Your task to perform on an android device: turn off picture-in-picture Image 0: 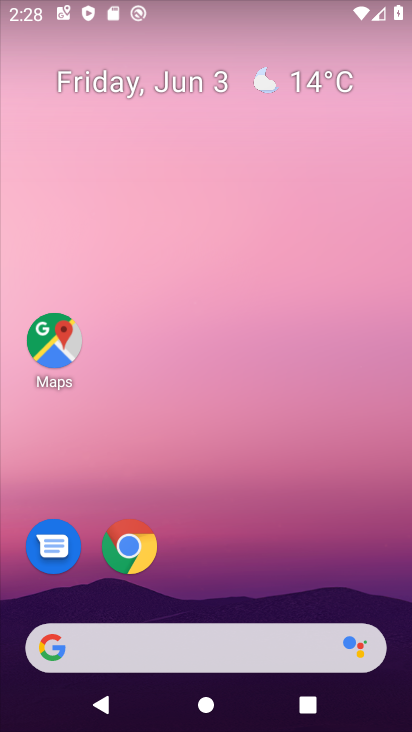
Step 0: drag from (342, 512) to (329, 44)
Your task to perform on an android device: turn off picture-in-picture Image 1: 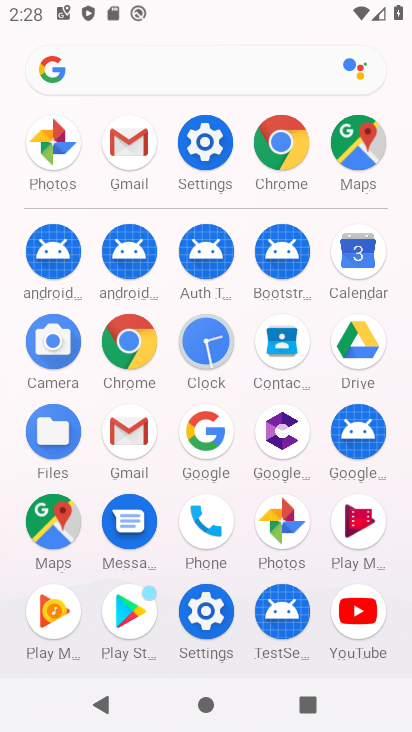
Step 1: click (278, 160)
Your task to perform on an android device: turn off picture-in-picture Image 2: 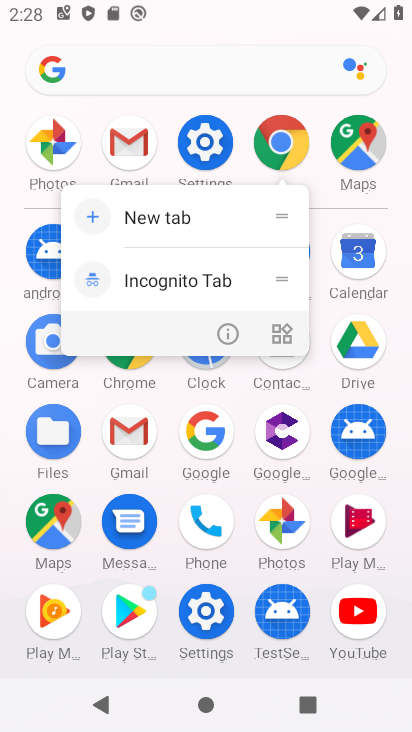
Step 2: click (228, 336)
Your task to perform on an android device: turn off picture-in-picture Image 3: 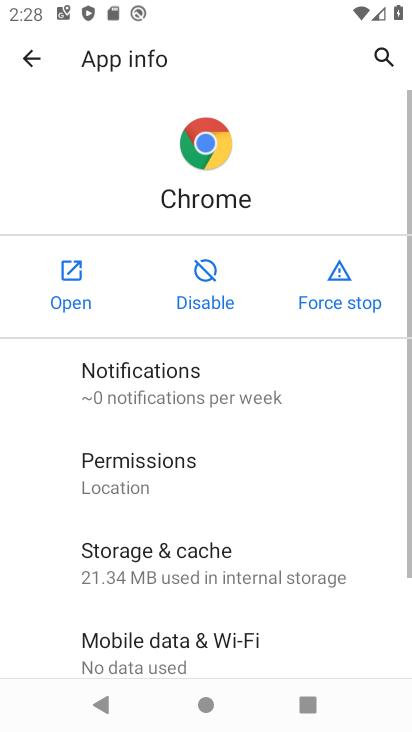
Step 3: drag from (184, 659) to (237, 252)
Your task to perform on an android device: turn off picture-in-picture Image 4: 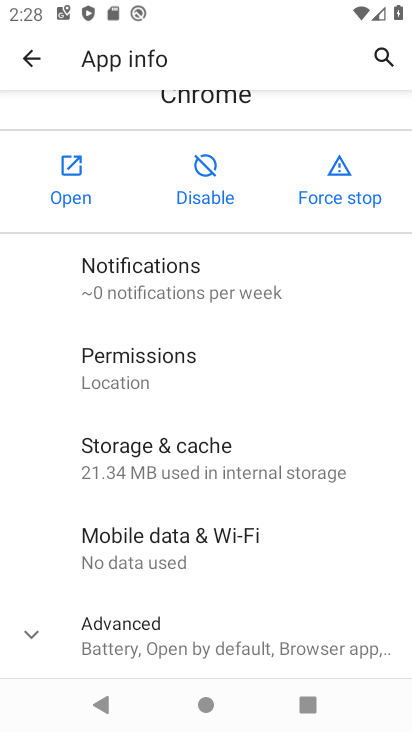
Step 4: click (181, 636)
Your task to perform on an android device: turn off picture-in-picture Image 5: 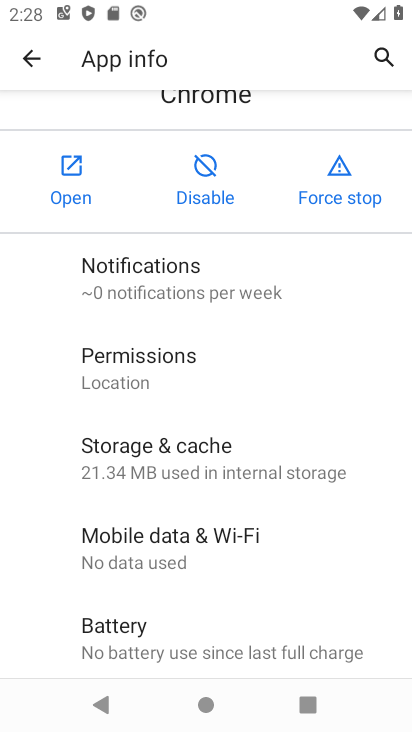
Step 5: drag from (168, 606) to (159, 173)
Your task to perform on an android device: turn off picture-in-picture Image 6: 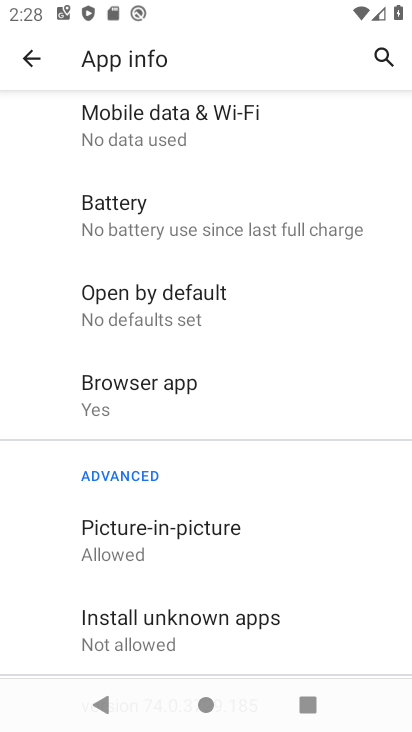
Step 6: click (116, 523)
Your task to perform on an android device: turn off picture-in-picture Image 7: 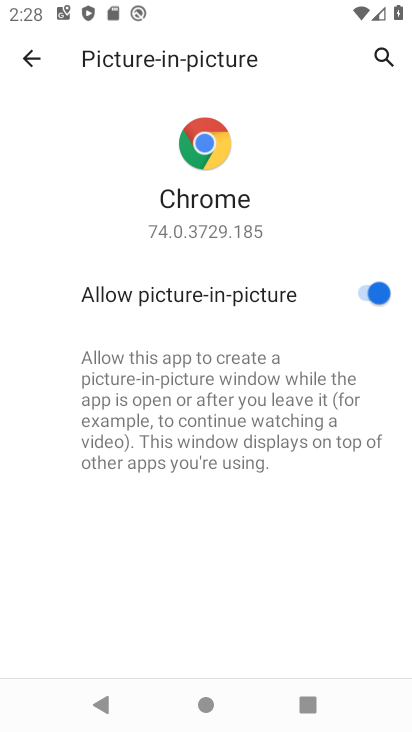
Step 7: click (377, 288)
Your task to perform on an android device: turn off picture-in-picture Image 8: 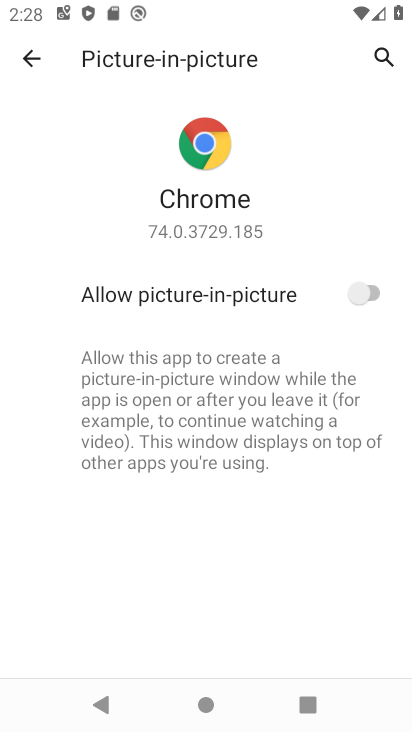
Step 8: task complete